Your task to perform on an android device: toggle javascript in the chrome app Image 0: 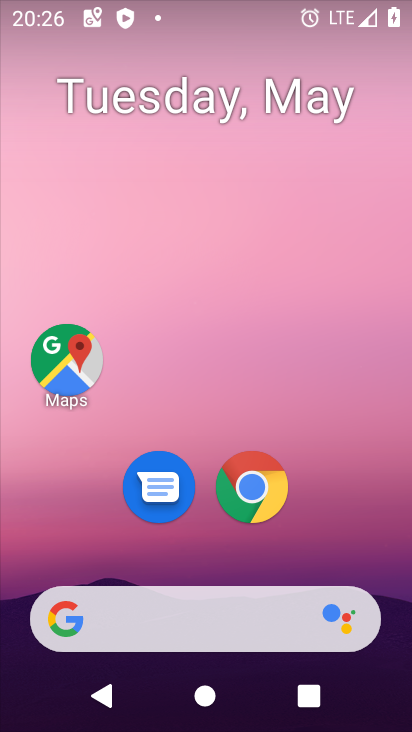
Step 0: click (248, 483)
Your task to perform on an android device: toggle javascript in the chrome app Image 1: 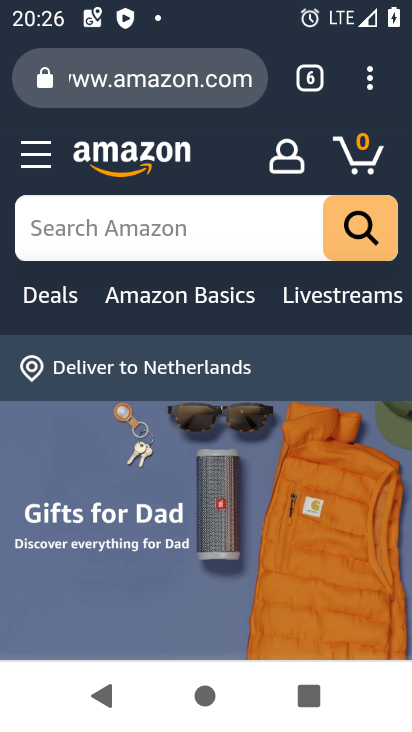
Step 1: click (370, 74)
Your task to perform on an android device: toggle javascript in the chrome app Image 2: 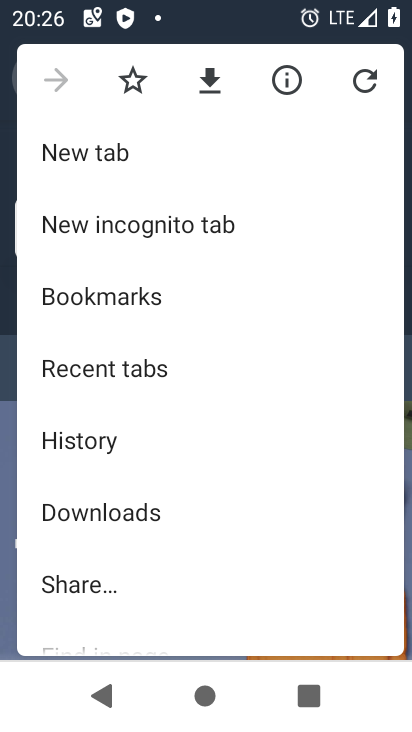
Step 2: drag from (266, 534) to (159, 123)
Your task to perform on an android device: toggle javascript in the chrome app Image 3: 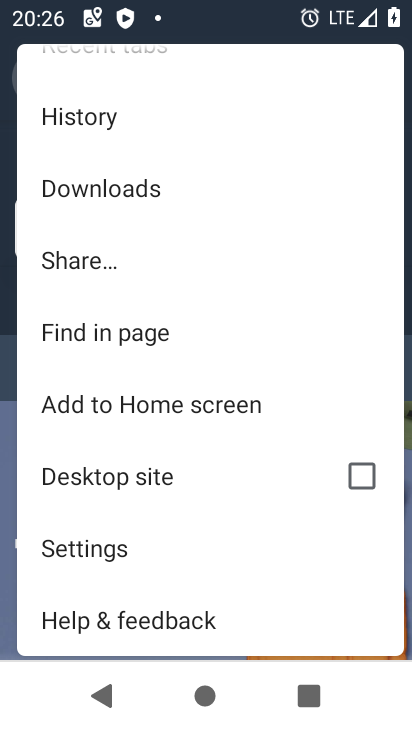
Step 3: click (111, 547)
Your task to perform on an android device: toggle javascript in the chrome app Image 4: 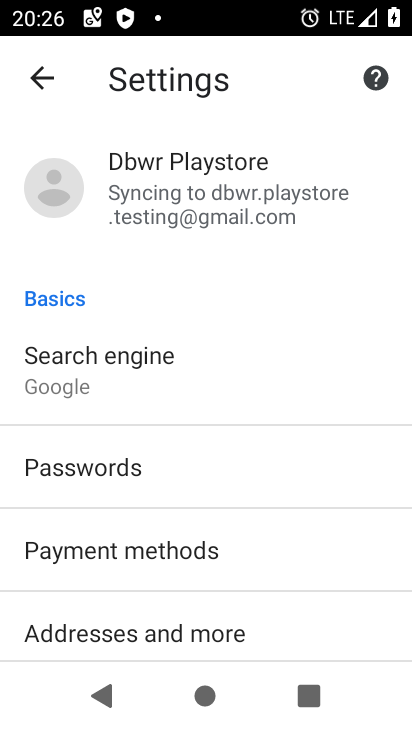
Step 4: drag from (258, 504) to (248, 213)
Your task to perform on an android device: toggle javascript in the chrome app Image 5: 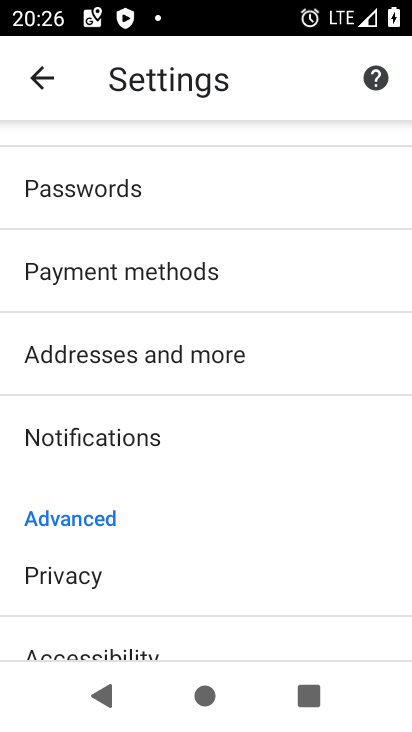
Step 5: drag from (204, 513) to (235, 210)
Your task to perform on an android device: toggle javascript in the chrome app Image 6: 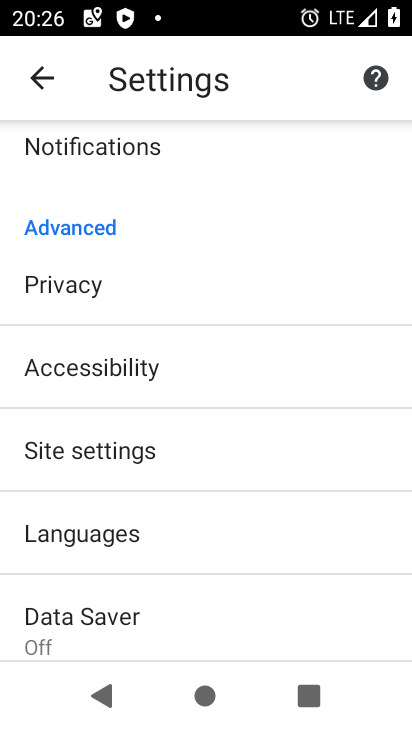
Step 6: click (99, 454)
Your task to perform on an android device: toggle javascript in the chrome app Image 7: 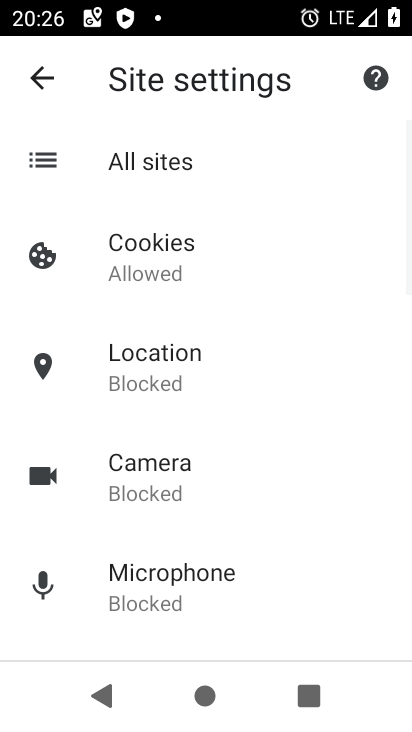
Step 7: drag from (271, 497) to (216, 143)
Your task to perform on an android device: toggle javascript in the chrome app Image 8: 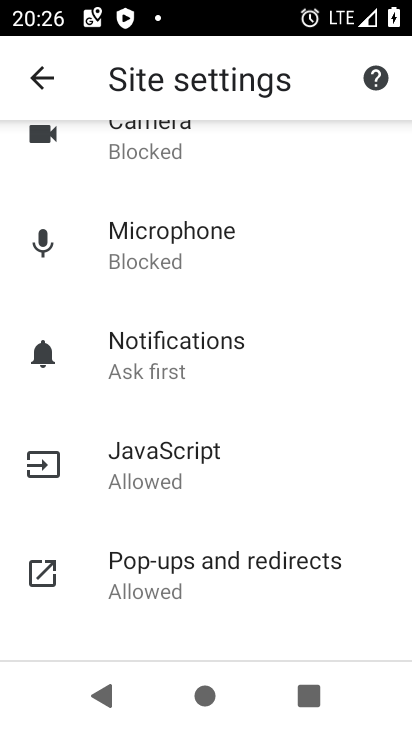
Step 8: click (191, 450)
Your task to perform on an android device: toggle javascript in the chrome app Image 9: 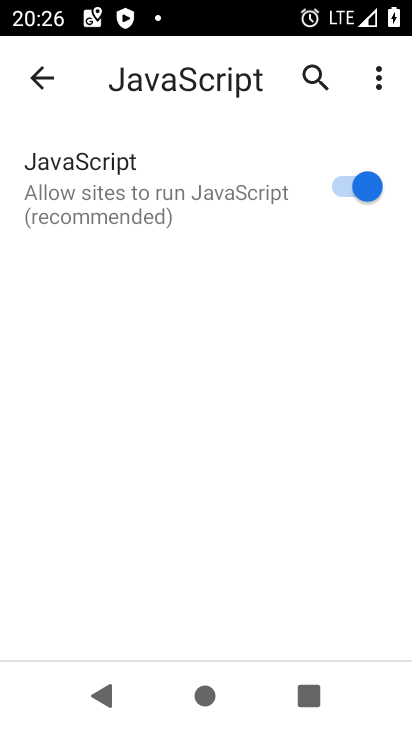
Step 9: click (357, 188)
Your task to perform on an android device: toggle javascript in the chrome app Image 10: 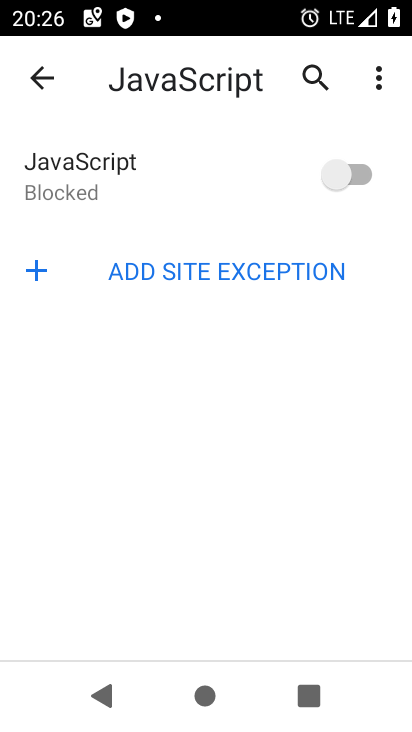
Step 10: task complete